Your task to perform on an android device: open a new tab in the chrome app Image 0: 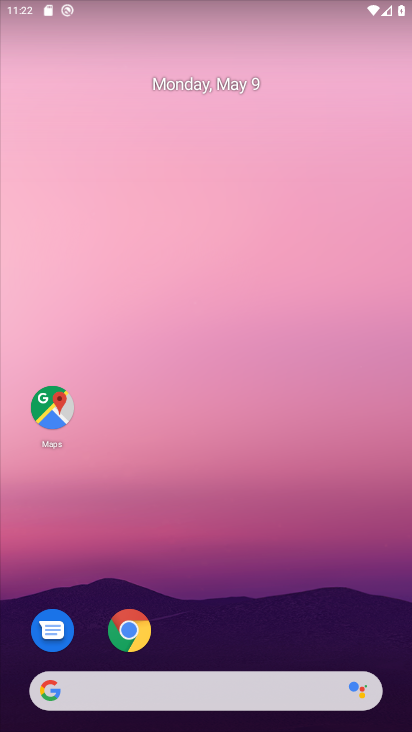
Step 0: drag from (132, 692) to (320, 140)
Your task to perform on an android device: open a new tab in the chrome app Image 1: 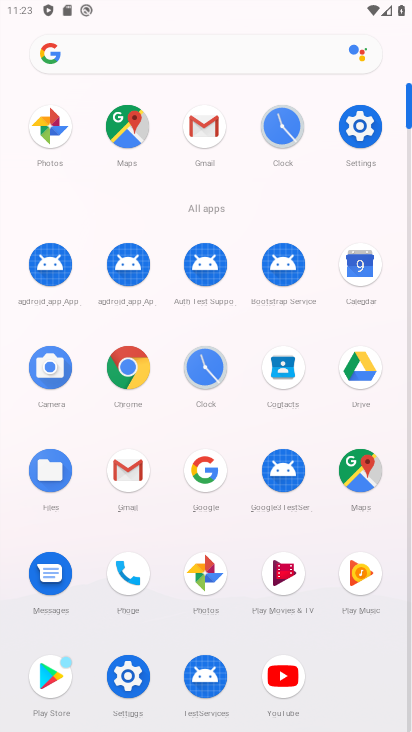
Step 1: click (129, 365)
Your task to perform on an android device: open a new tab in the chrome app Image 2: 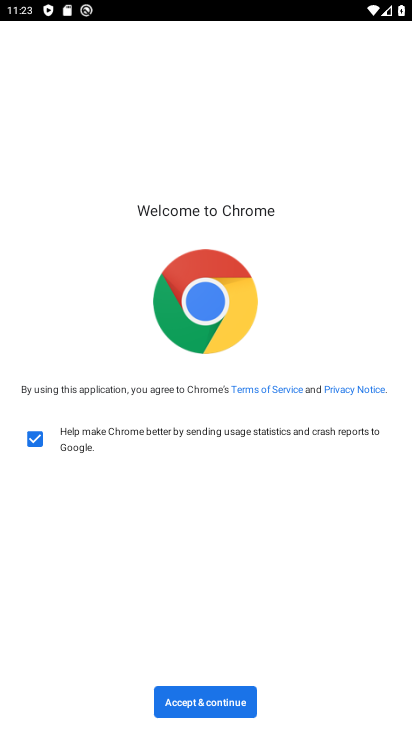
Step 2: click (178, 695)
Your task to perform on an android device: open a new tab in the chrome app Image 3: 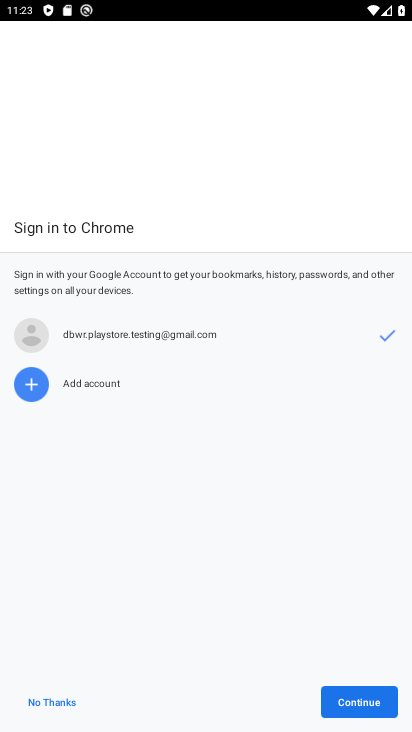
Step 3: click (329, 704)
Your task to perform on an android device: open a new tab in the chrome app Image 4: 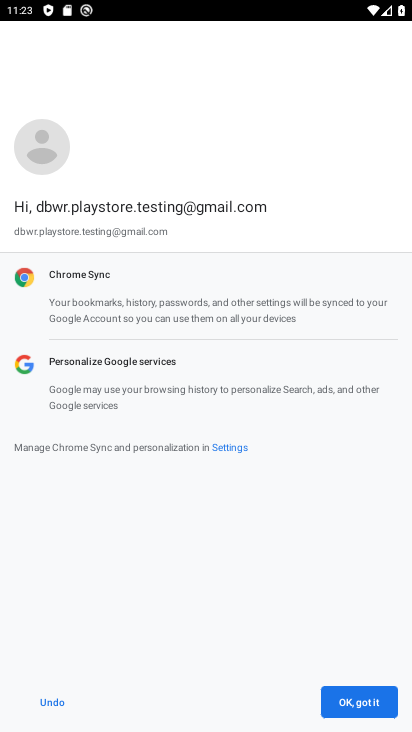
Step 4: click (370, 695)
Your task to perform on an android device: open a new tab in the chrome app Image 5: 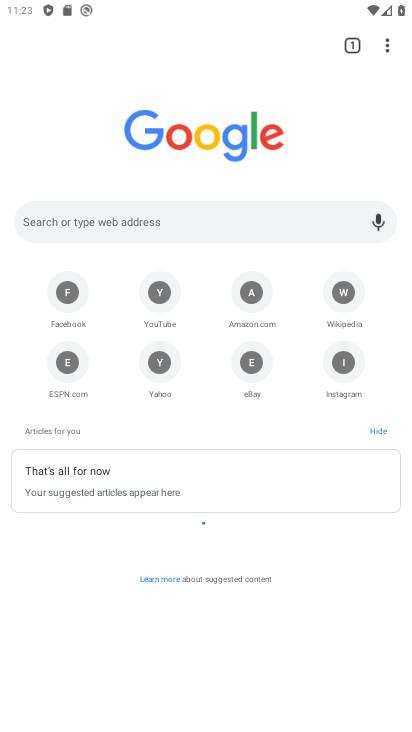
Step 5: task complete